Your task to perform on an android device: star an email in the gmail app Image 0: 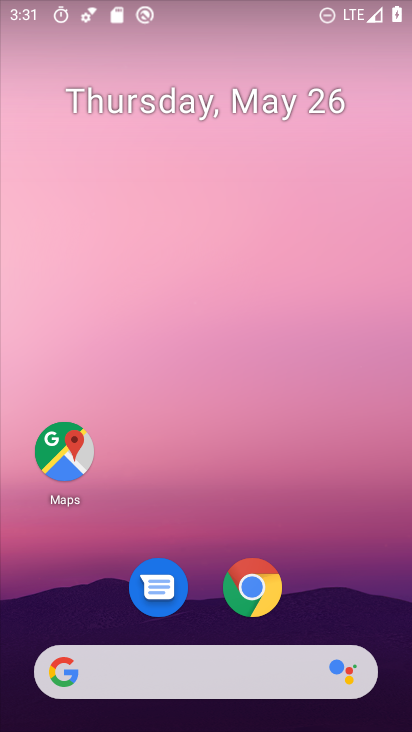
Step 0: drag from (338, 558) to (361, 145)
Your task to perform on an android device: star an email in the gmail app Image 1: 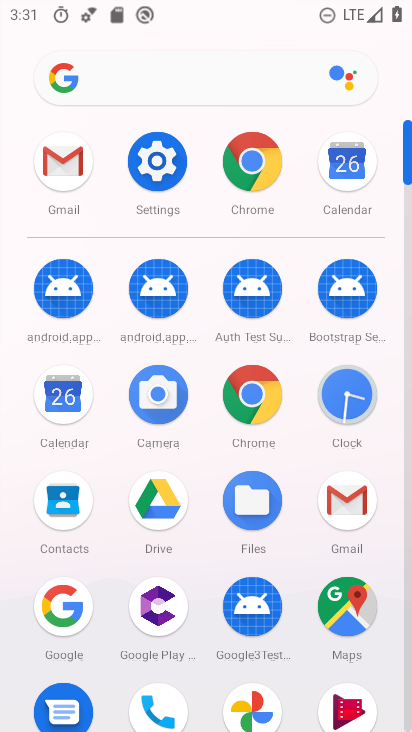
Step 1: click (64, 177)
Your task to perform on an android device: star an email in the gmail app Image 2: 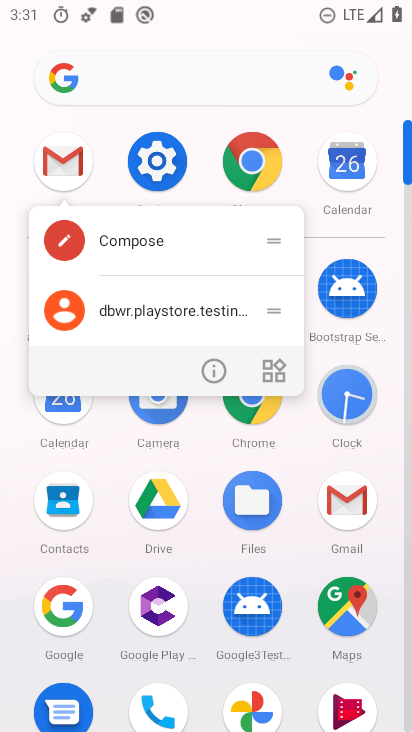
Step 2: click (64, 174)
Your task to perform on an android device: star an email in the gmail app Image 3: 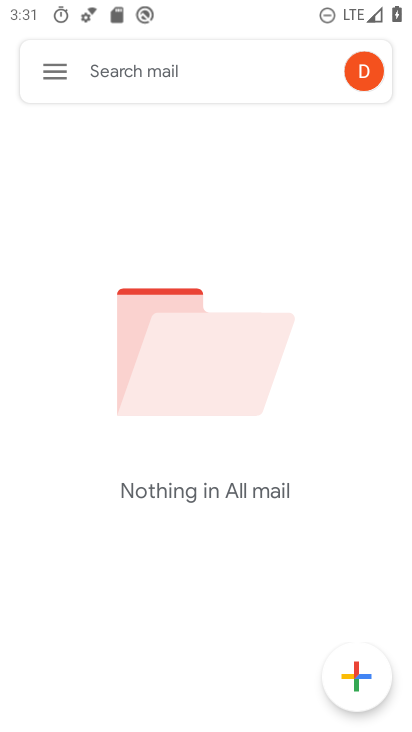
Step 3: click (48, 72)
Your task to perform on an android device: star an email in the gmail app Image 4: 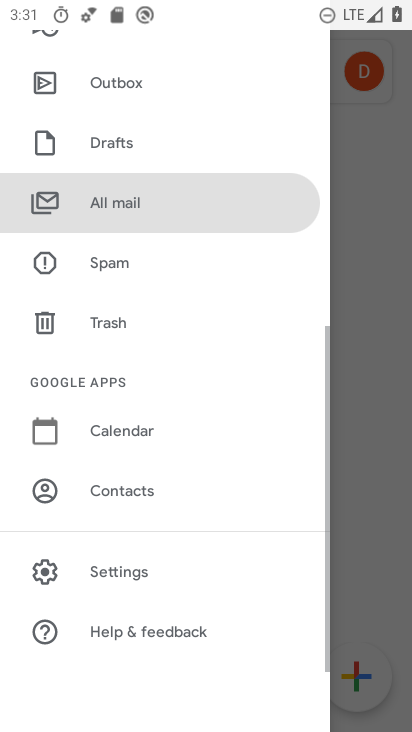
Step 4: drag from (160, 158) to (179, 488)
Your task to perform on an android device: star an email in the gmail app Image 5: 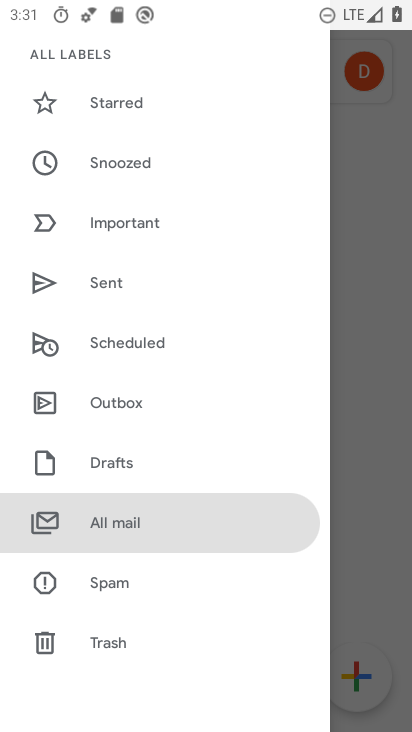
Step 5: click (110, 524)
Your task to perform on an android device: star an email in the gmail app Image 6: 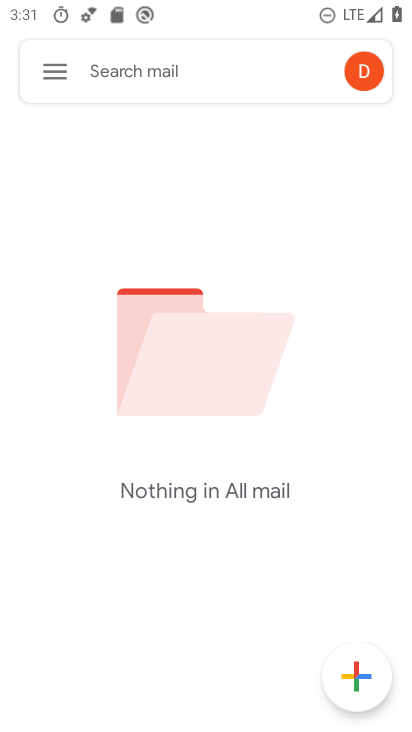
Step 6: task complete